Your task to perform on an android device: Open battery settings Image 0: 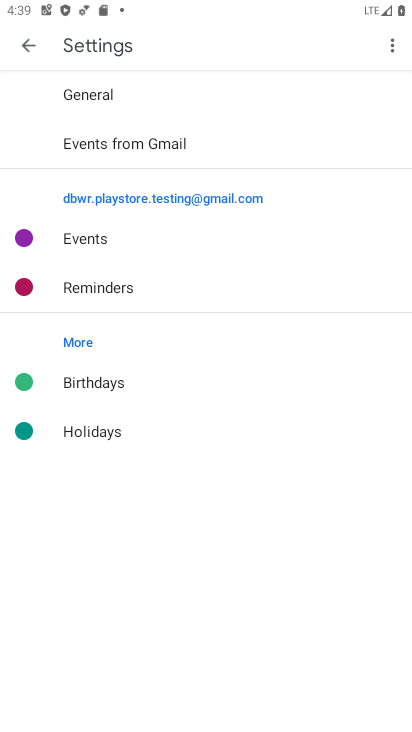
Step 0: press home button
Your task to perform on an android device: Open battery settings Image 1: 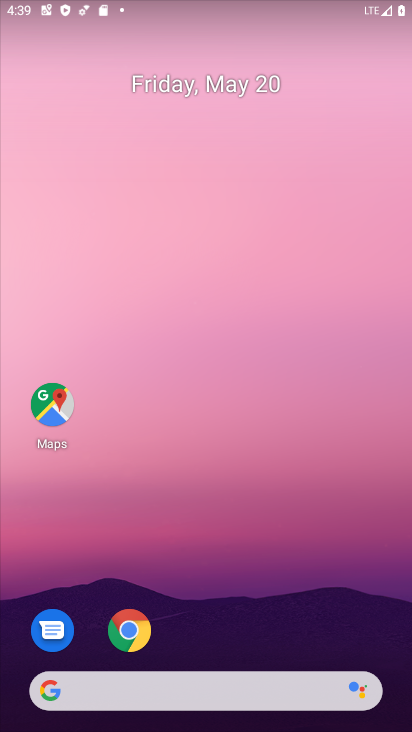
Step 1: drag from (244, 564) to (267, 21)
Your task to perform on an android device: Open battery settings Image 2: 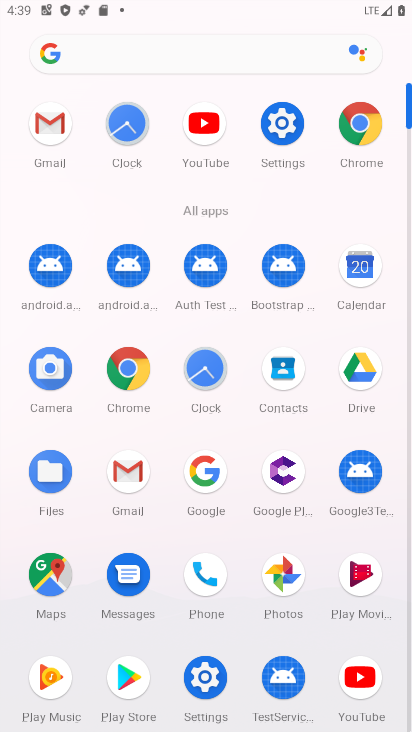
Step 2: click (277, 119)
Your task to perform on an android device: Open battery settings Image 3: 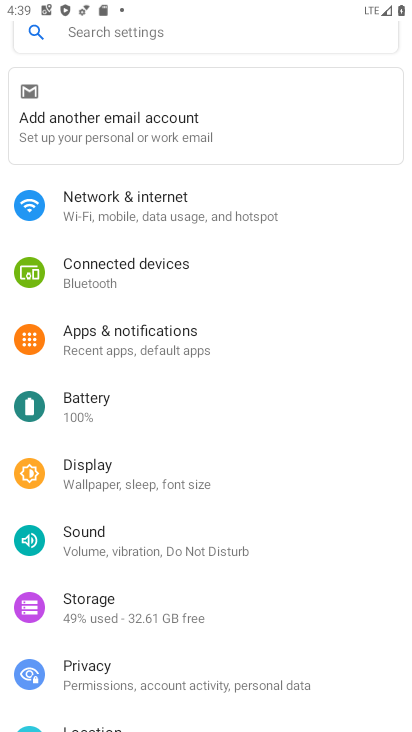
Step 3: click (166, 403)
Your task to perform on an android device: Open battery settings Image 4: 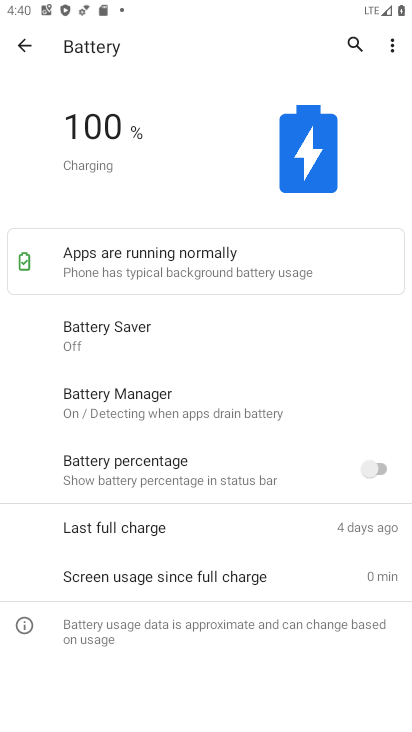
Step 4: task complete